Your task to perform on an android device: turn off smart reply in the gmail app Image 0: 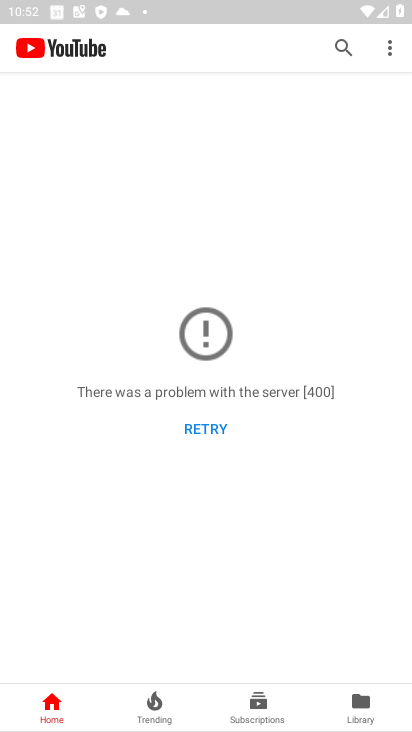
Step 0: press home button
Your task to perform on an android device: turn off smart reply in the gmail app Image 1: 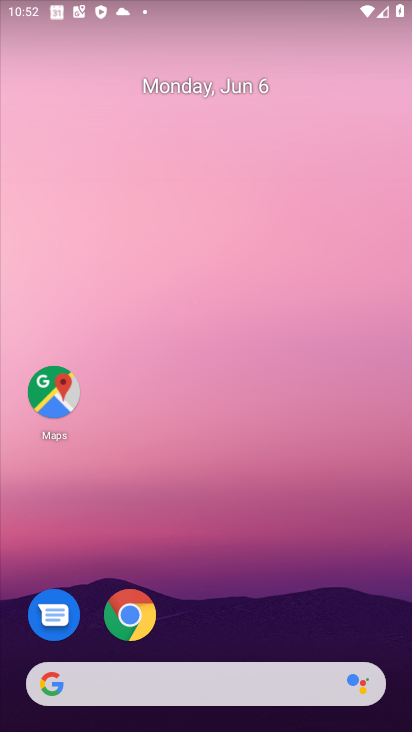
Step 1: drag from (254, 624) to (283, 108)
Your task to perform on an android device: turn off smart reply in the gmail app Image 2: 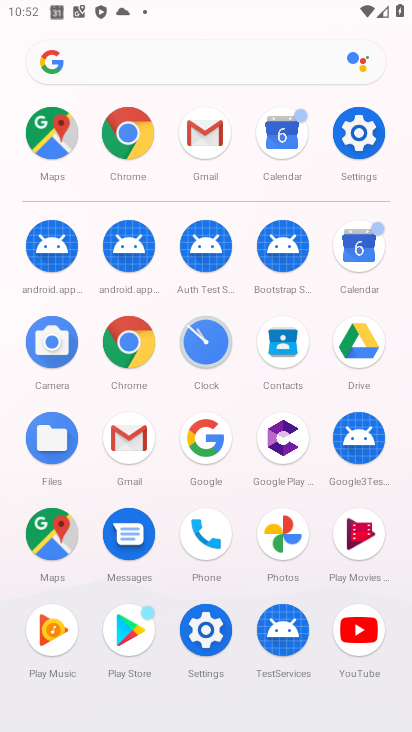
Step 2: click (357, 143)
Your task to perform on an android device: turn off smart reply in the gmail app Image 3: 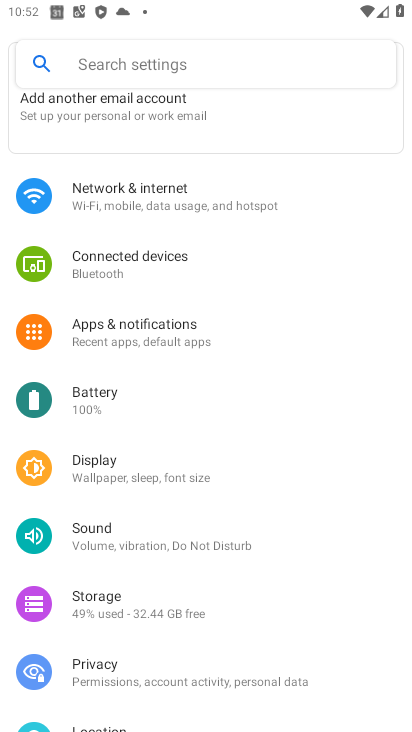
Step 3: task complete